Your task to perform on an android device: Open calendar and show me the fourth week of next month Image 0: 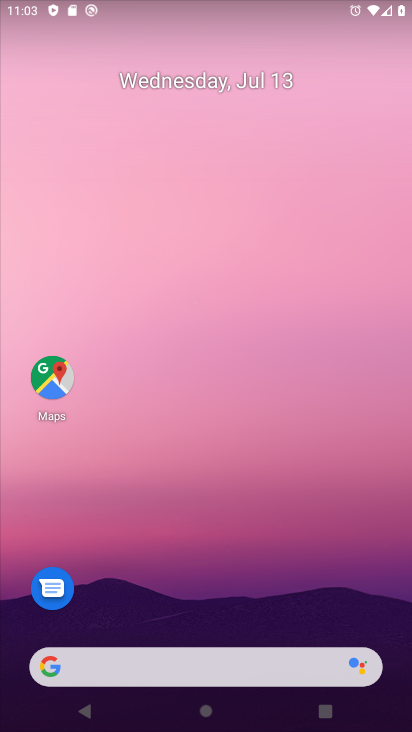
Step 0: drag from (148, 717) to (248, 122)
Your task to perform on an android device: Open calendar and show me the fourth week of next month Image 1: 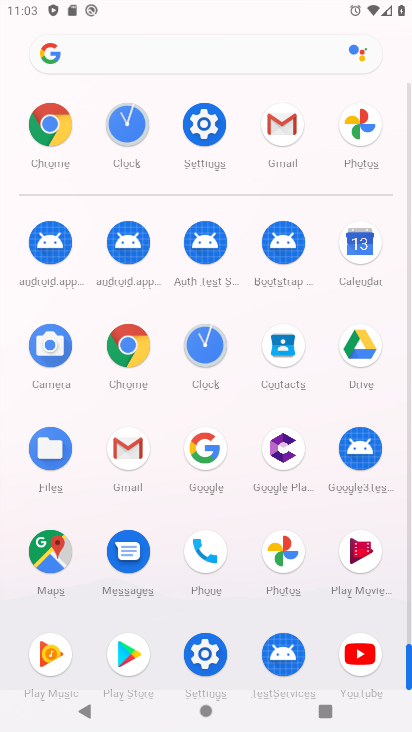
Step 1: click (373, 234)
Your task to perform on an android device: Open calendar and show me the fourth week of next month Image 2: 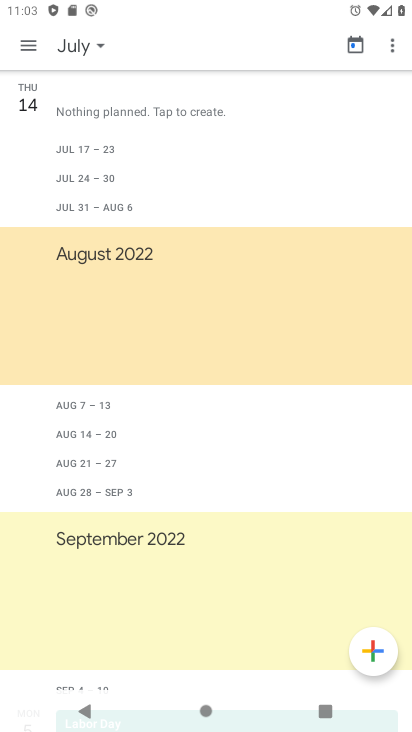
Step 2: click (82, 46)
Your task to perform on an android device: Open calendar and show me the fourth week of next month Image 3: 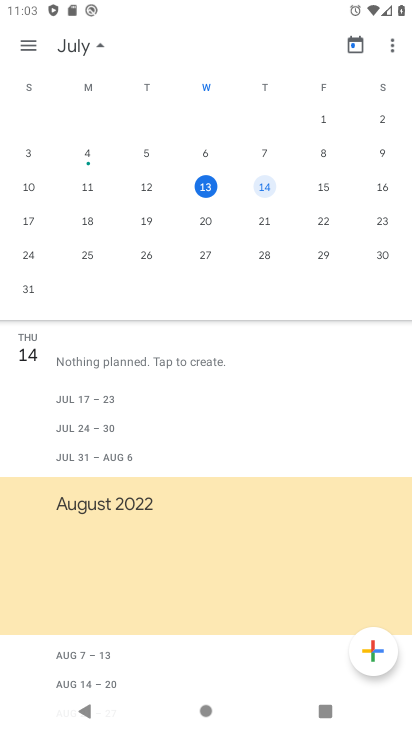
Step 3: drag from (273, 154) to (41, 193)
Your task to perform on an android device: Open calendar and show me the fourth week of next month Image 4: 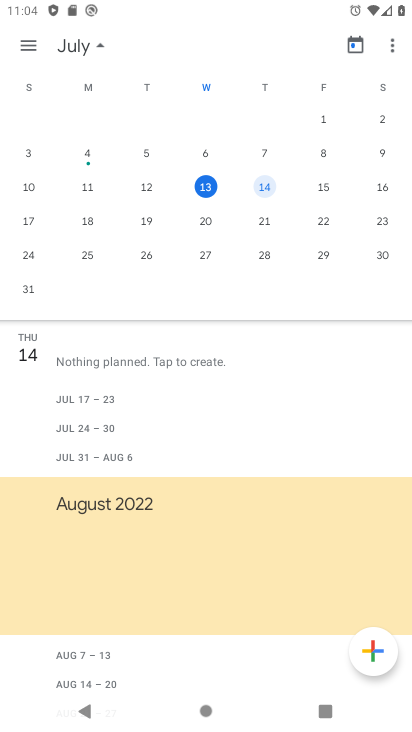
Step 4: drag from (361, 174) to (28, 271)
Your task to perform on an android device: Open calendar and show me the fourth week of next month Image 5: 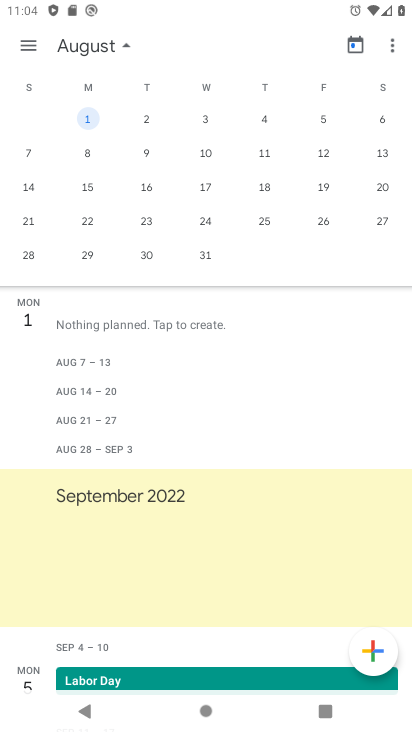
Step 5: click (24, 224)
Your task to perform on an android device: Open calendar and show me the fourth week of next month Image 6: 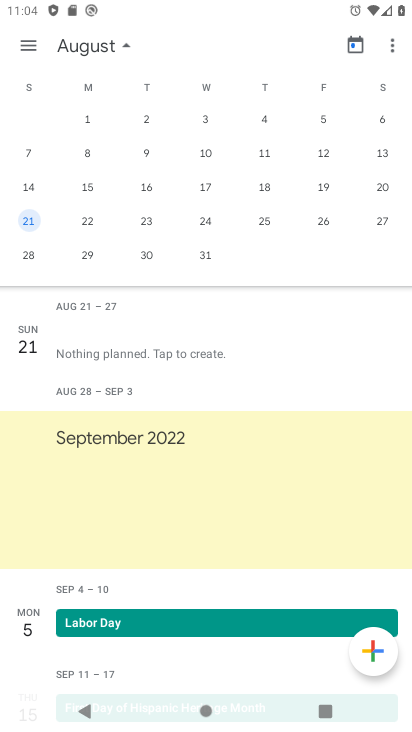
Step 6: task complete